Your task to perform on an android device: Go to wifi settings Image 0: 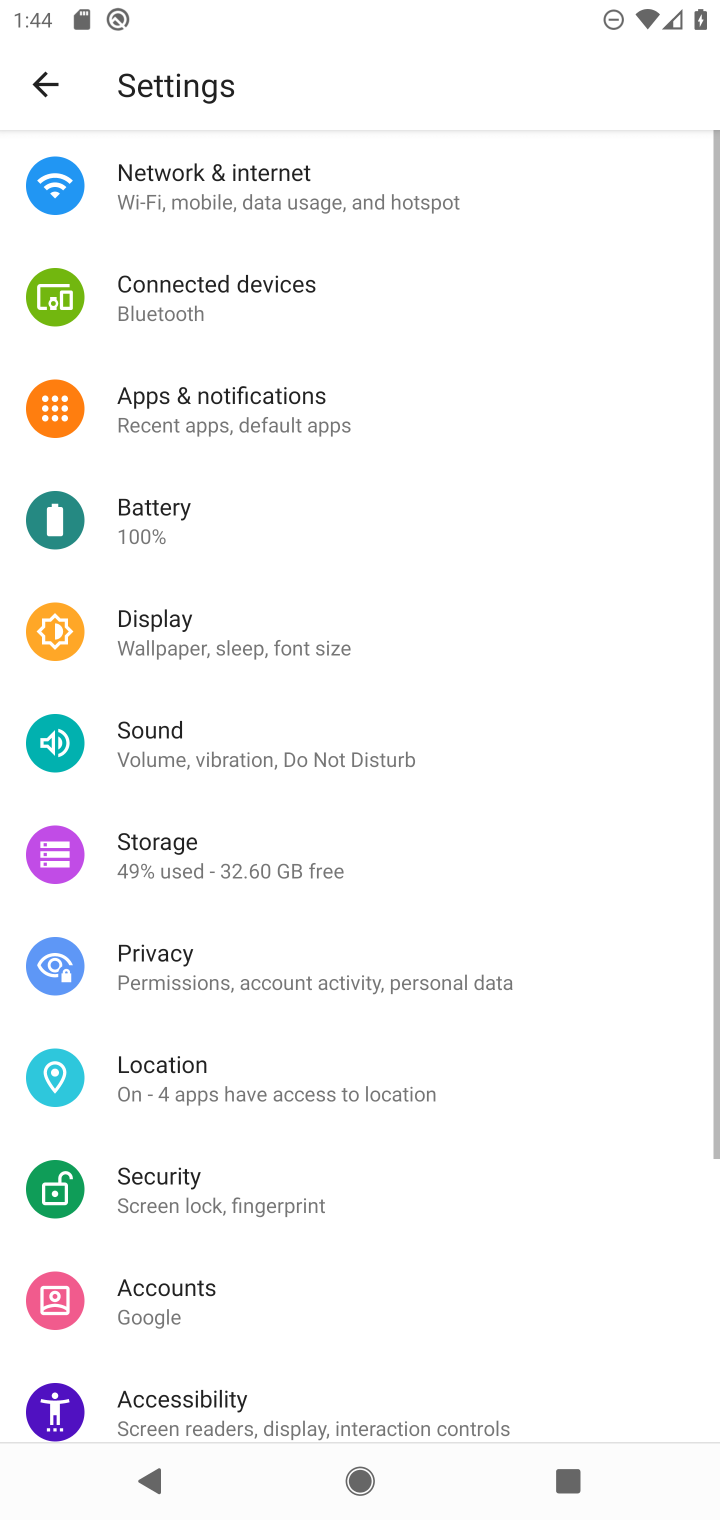
Step 0: press home button
Your task to perform on an android device: Go to wifi settings Image 1: 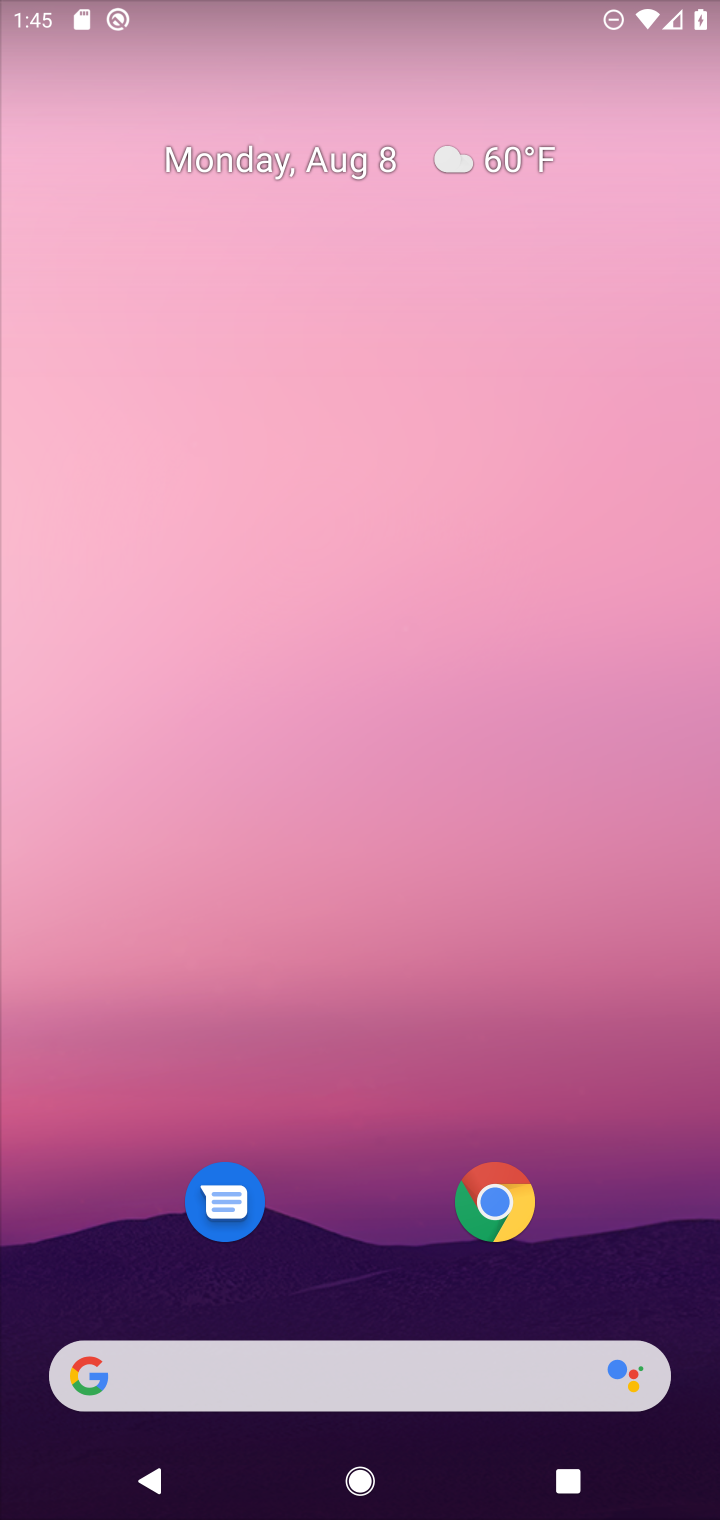
Step 1: drag from (615, 1061) to (610, 193)
Your task to perform on an android device: Go to wifi settings Image 2: 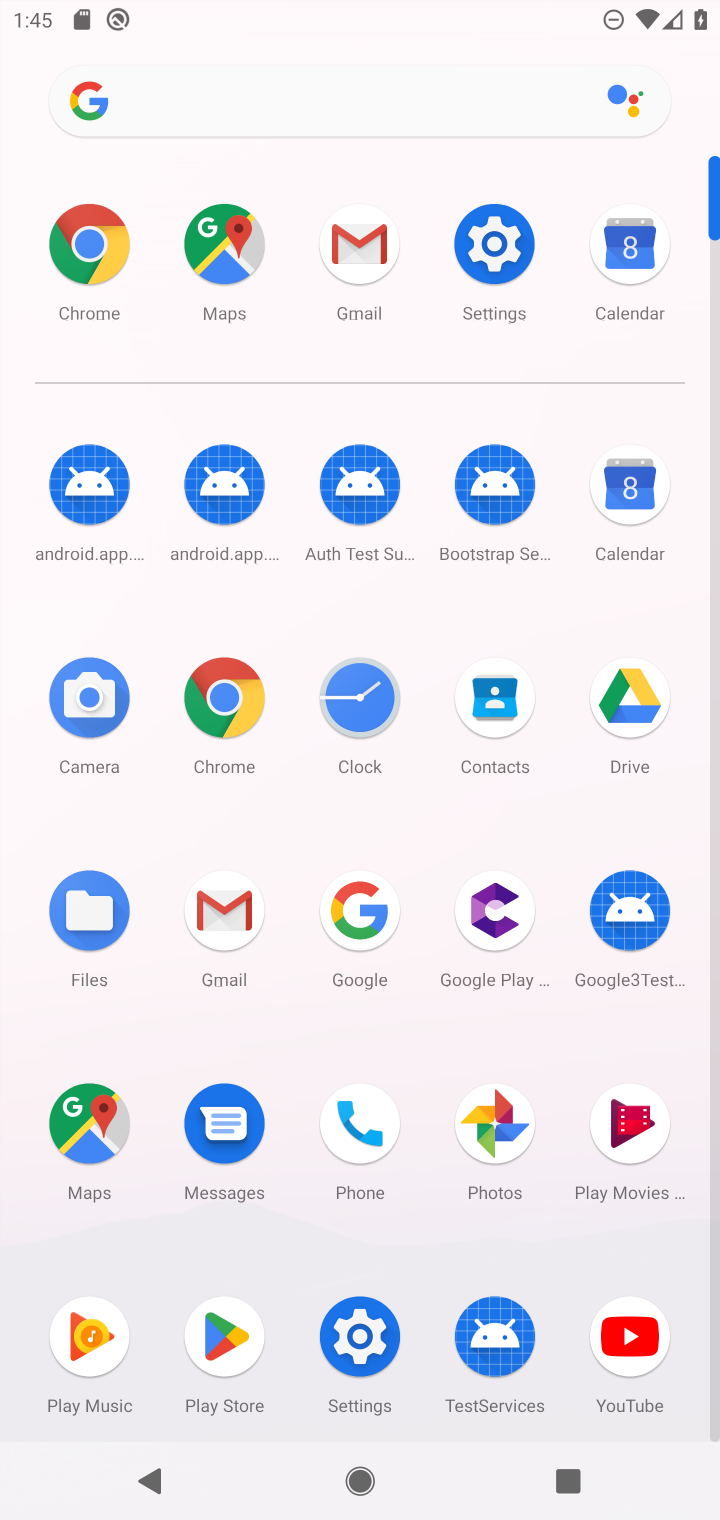
Step 2: click (486, 259)
Your task to perform on an android device: Go to wifi settings Image 3: 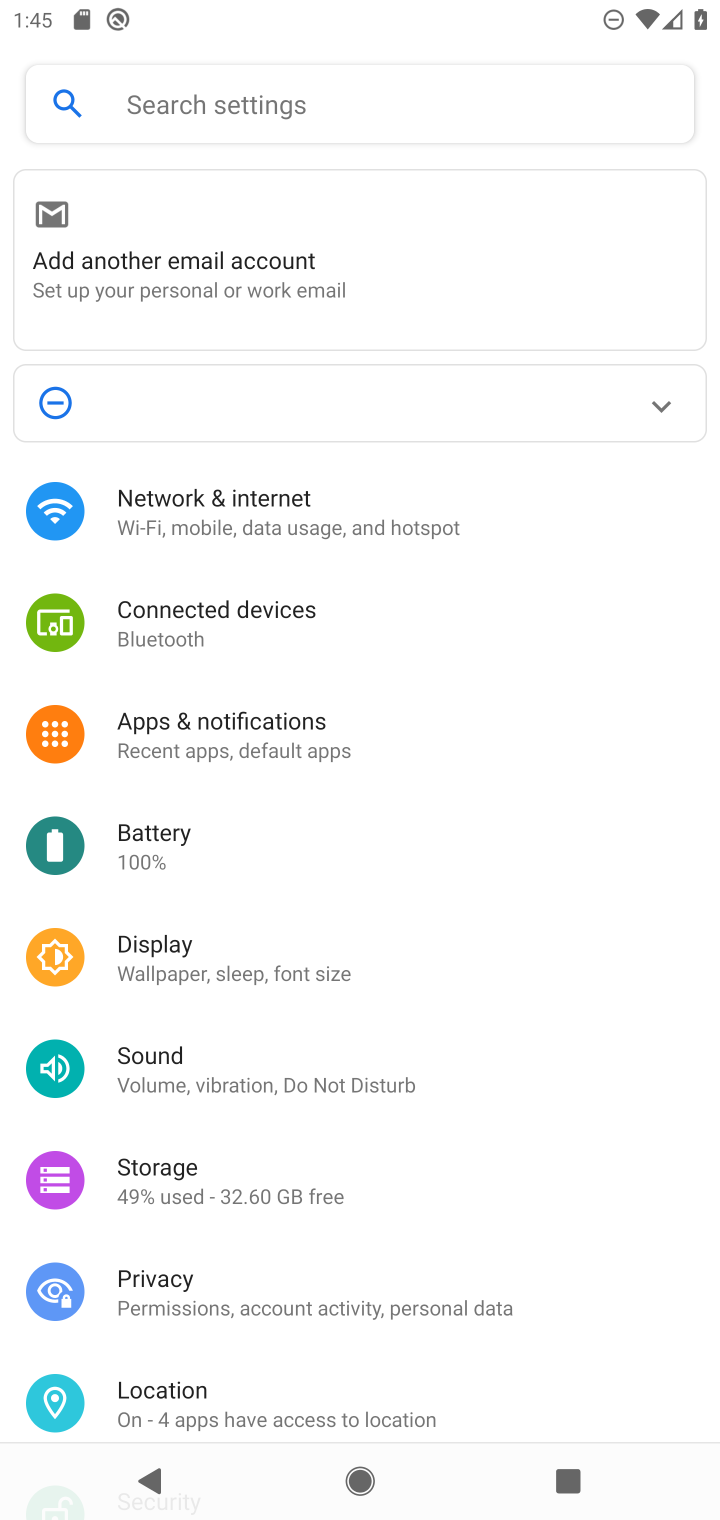
Step 3: drag from (614, 820) to (646, 568)
Your task to perform on an android device: Go to wifi settings Image 4: 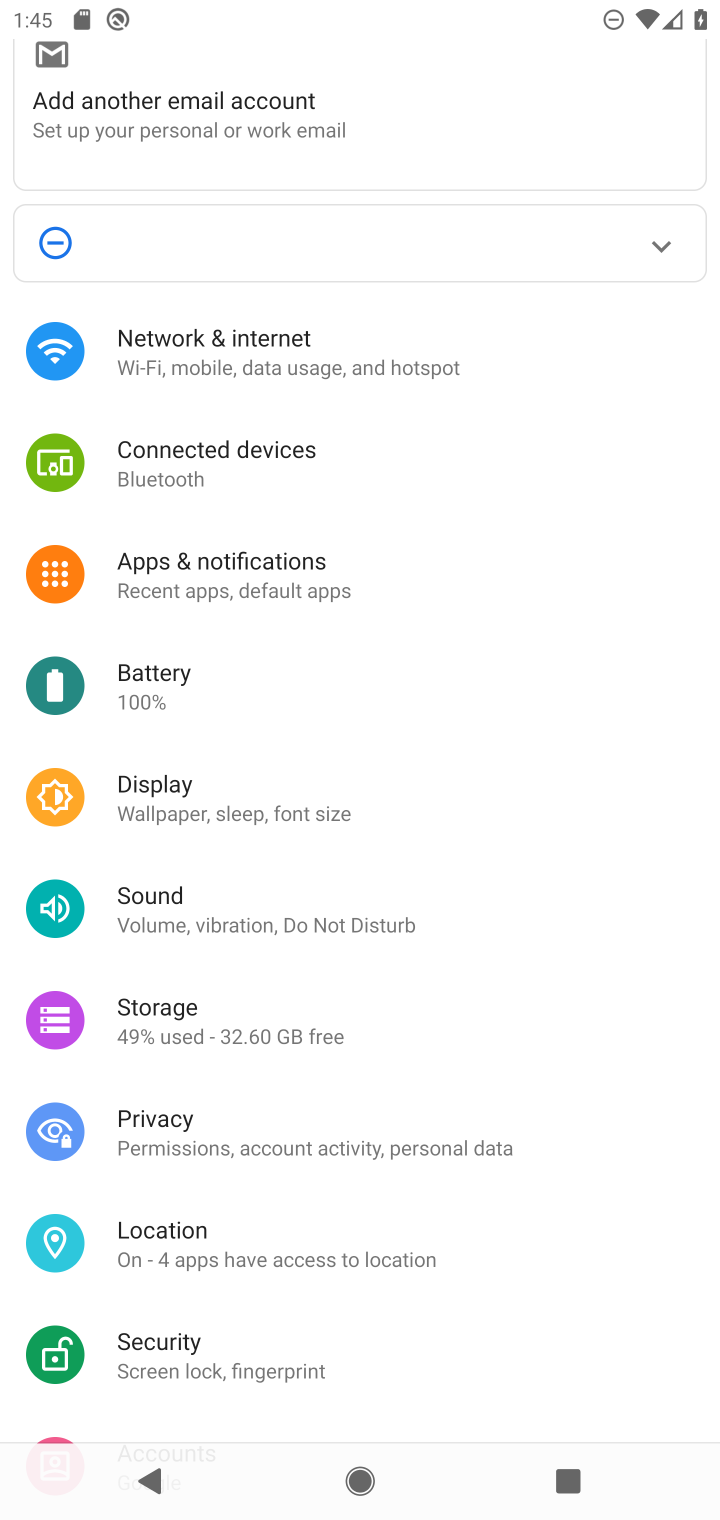
Step 4: drag from (598, 878) to (612, 518)
Your task to perform on an android device: Go to wifi settings Image 5: 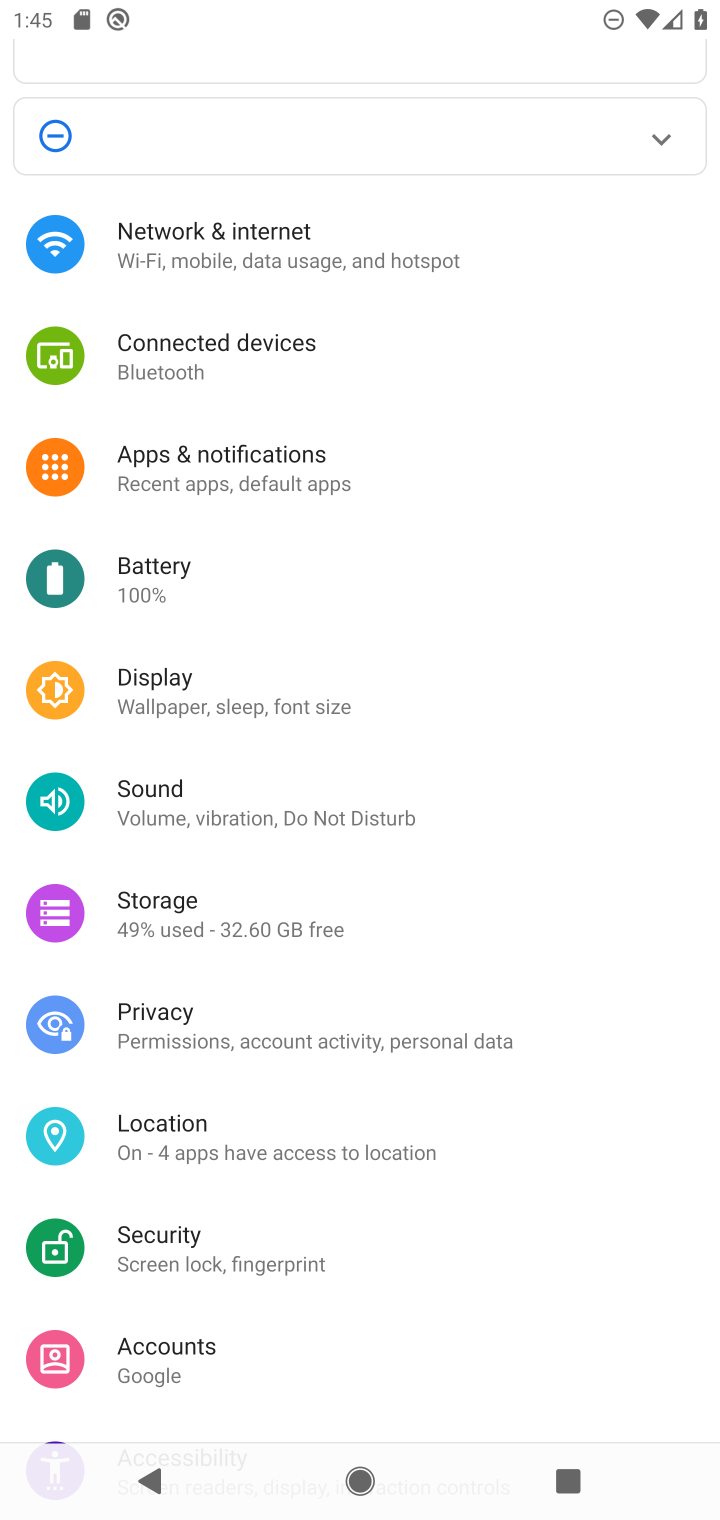
Step 5: drag from (630, 877) to (615, 476)
Your task to perform on an android device: Go to wifi settings Image 6: 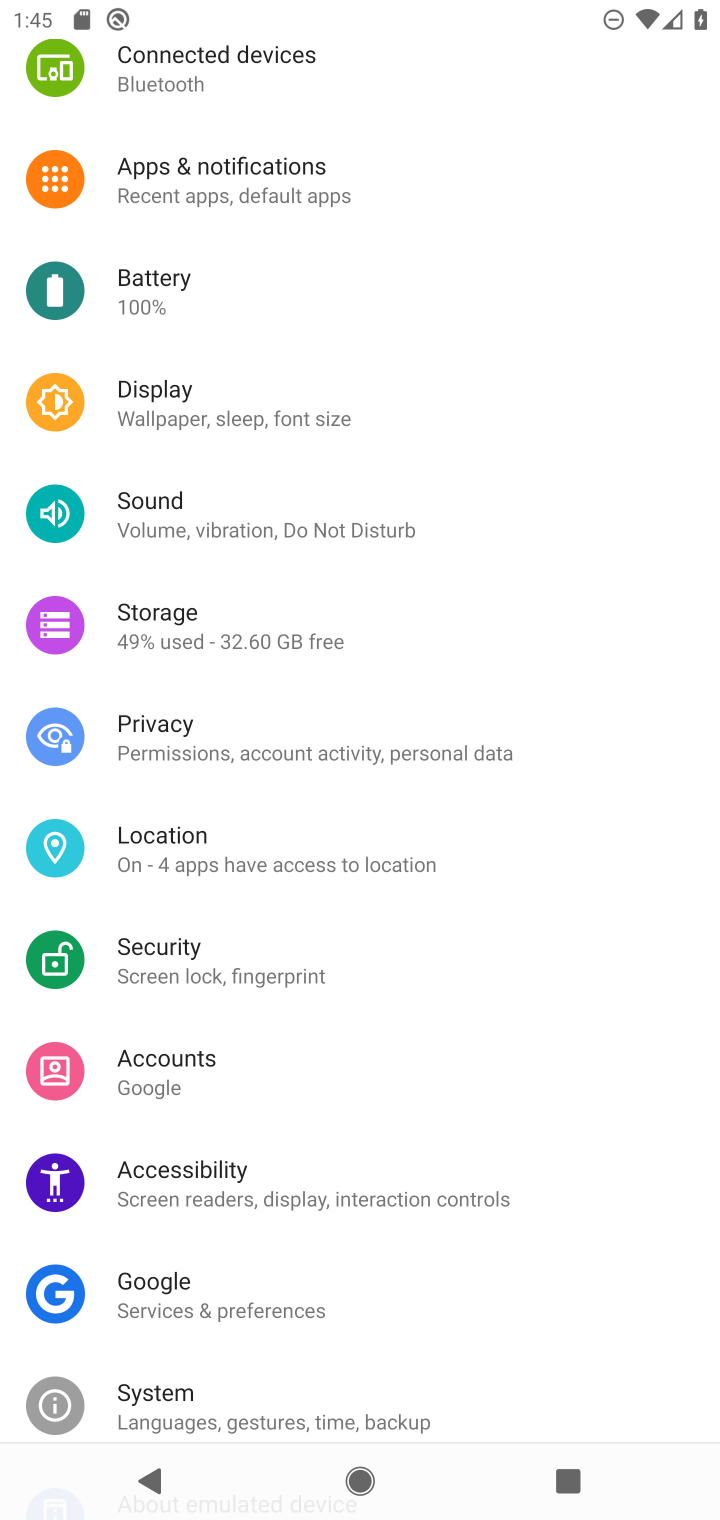
Step 6: drag from (589, 885) to (603, 585)
Your task to perform on an android device: Go to wifi settings Image 7: 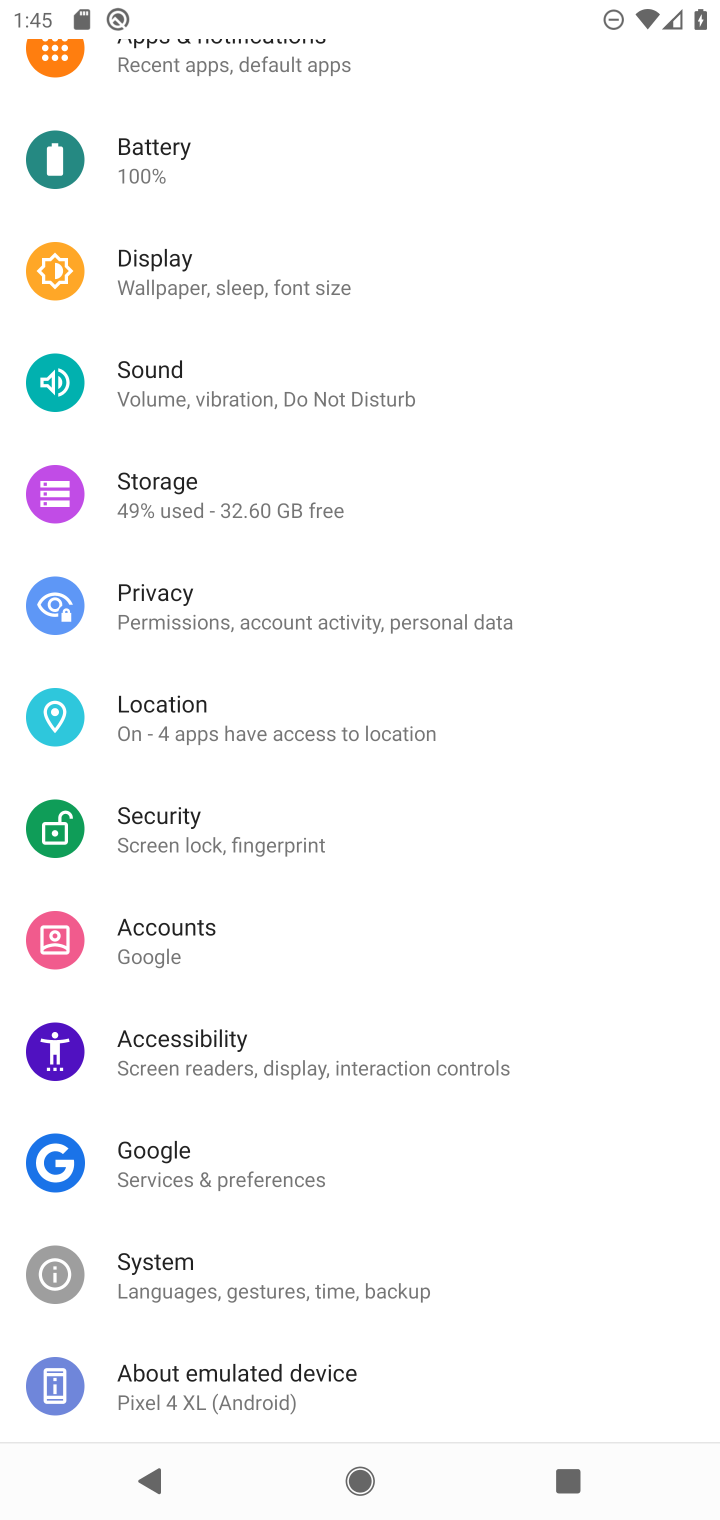
Step 7: drag from (607, 925) to (629, 530)
Your task to perform on an android device: Go to wifi settings Image 8: 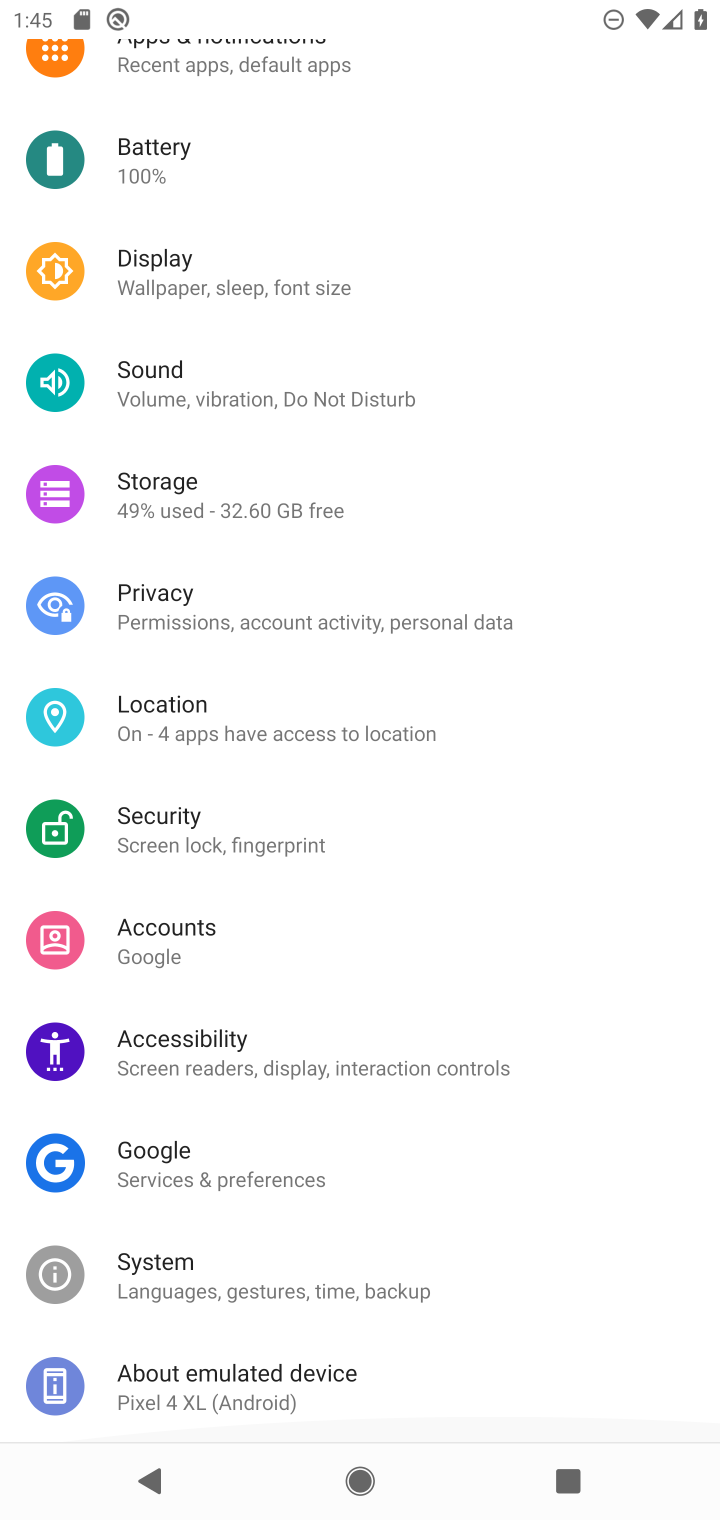
Step 8: drag from (615, 513) to (630, 854)
Your task to perform on an android device: Go to wifi settings Image 9: 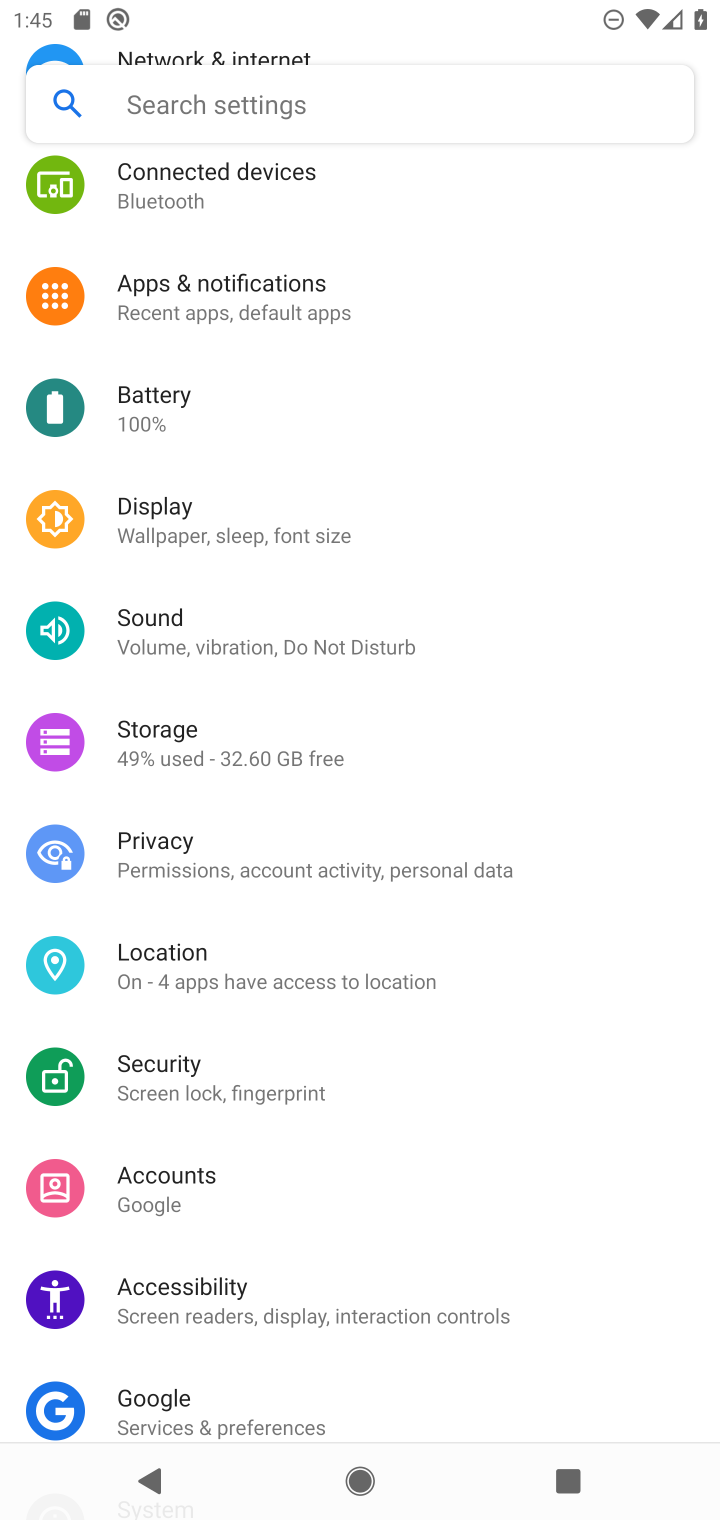
Step 9: drag from (595, 375) to (587, 772)
Your task to perform on an android device: Go to wifi settings Image 10: 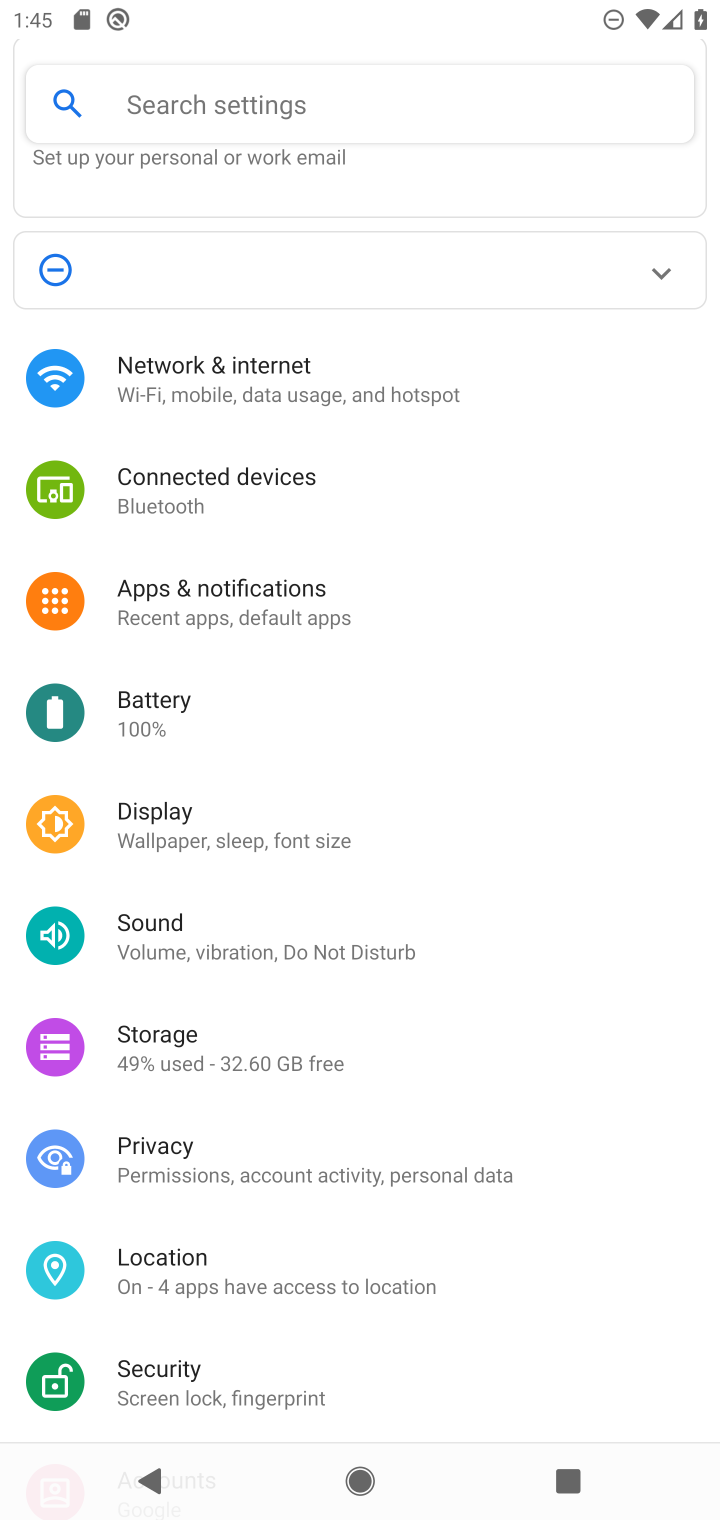
Step 10: drag from (581, 374) to (591, 861)
Your task to perform on an android device: Go to wifi settings Image 11: 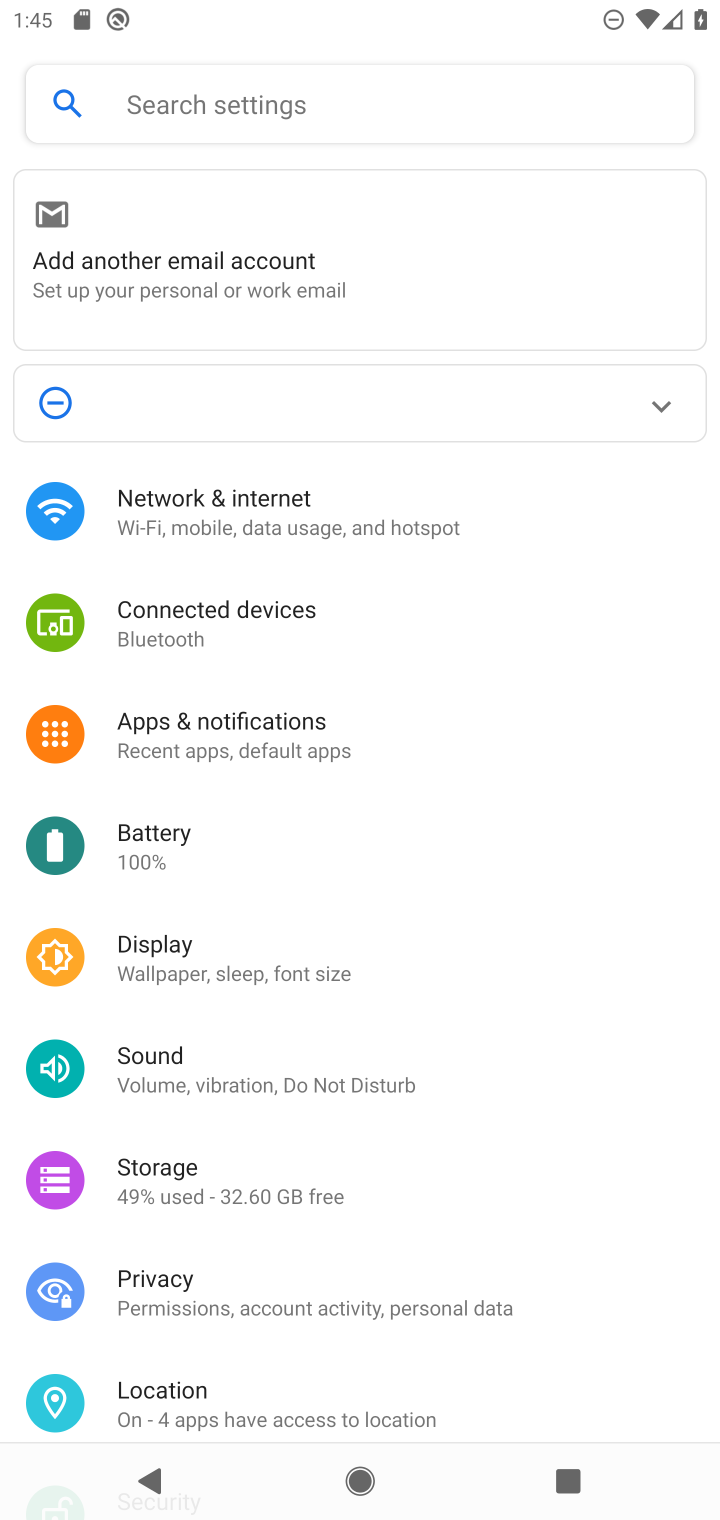
Step 11: drag from (538, 320) to (413, 512)
Your task to perform on an android device: Go to wifi settings Image 12: 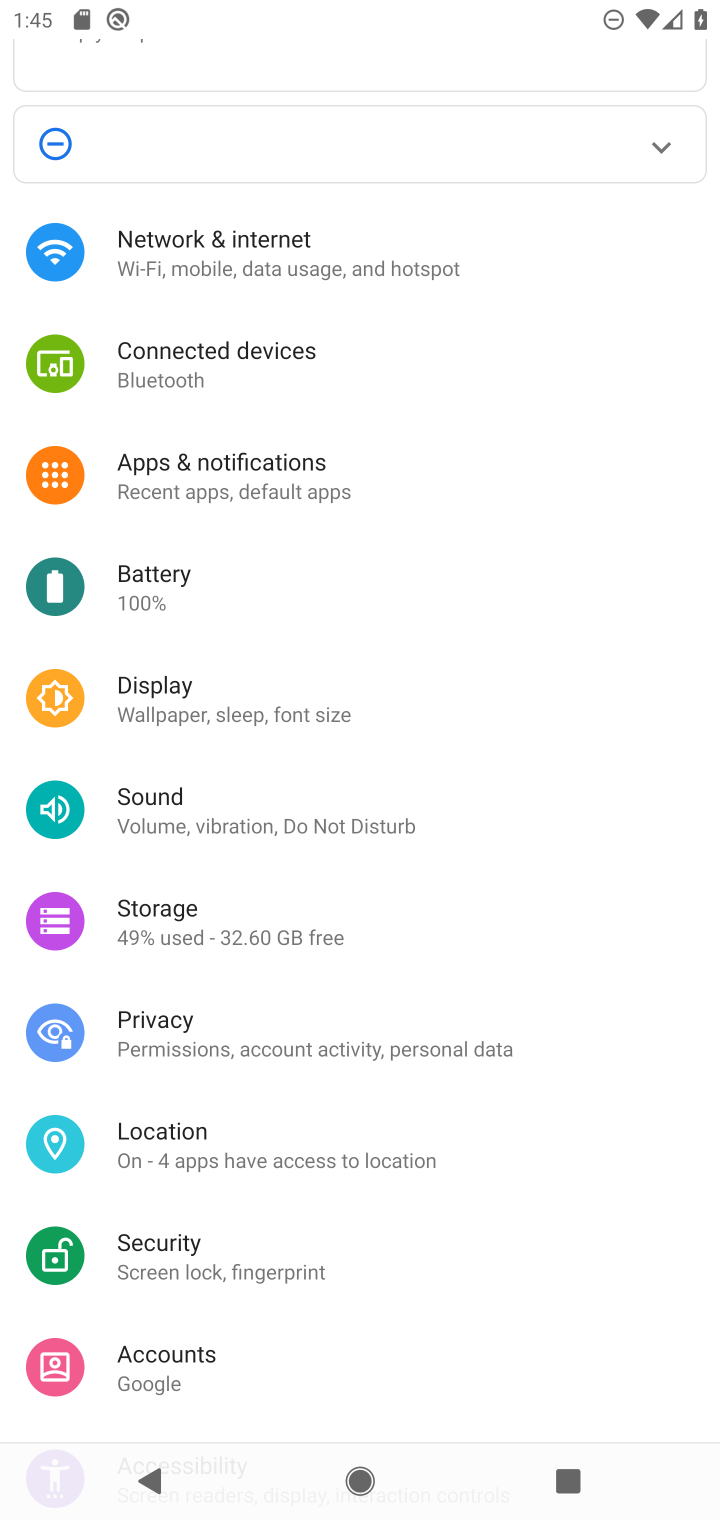
Step 12: click (335, 234)
Your task to perform on an android device: Go to wifi settings Image 13: 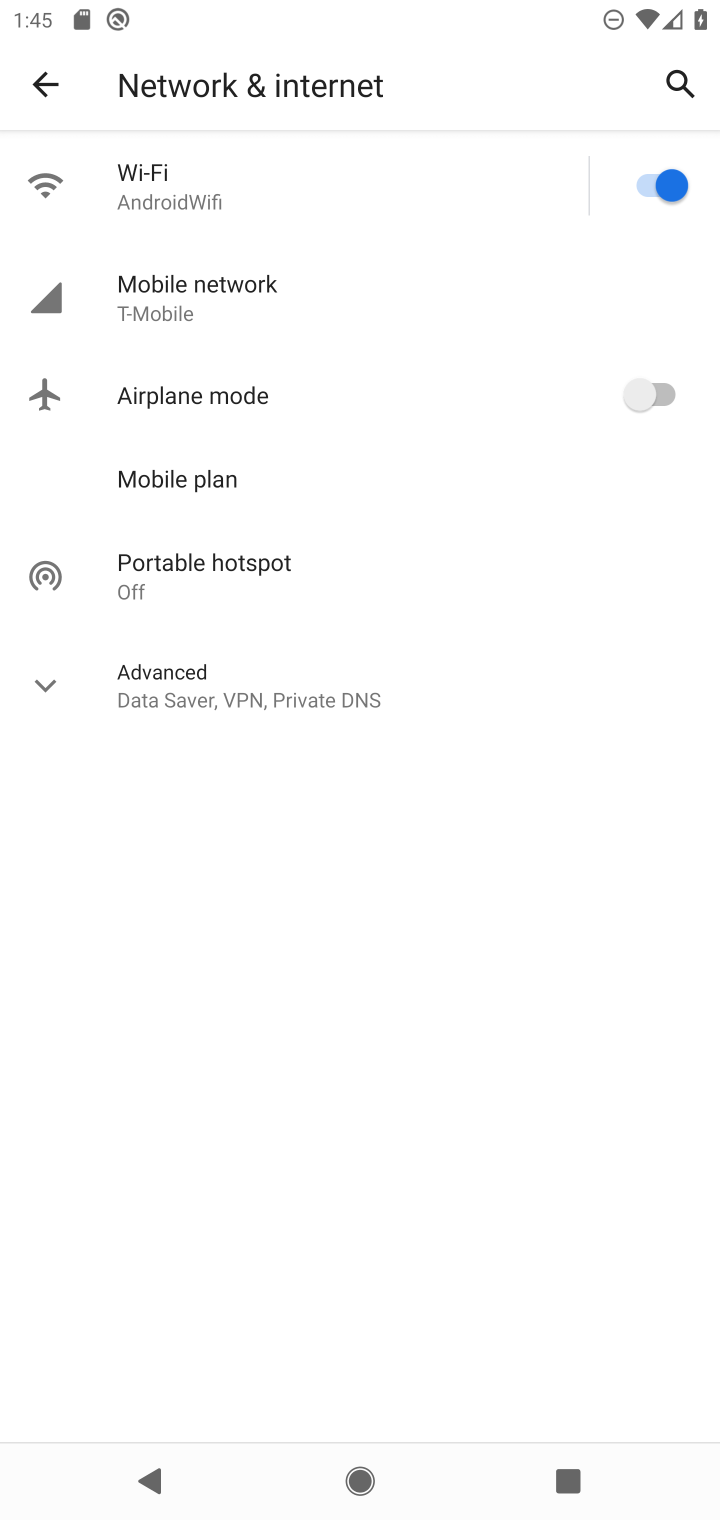
Step 13: click (203, 181)
Your task to perform on an android device: Go to wifi settings Image 14: 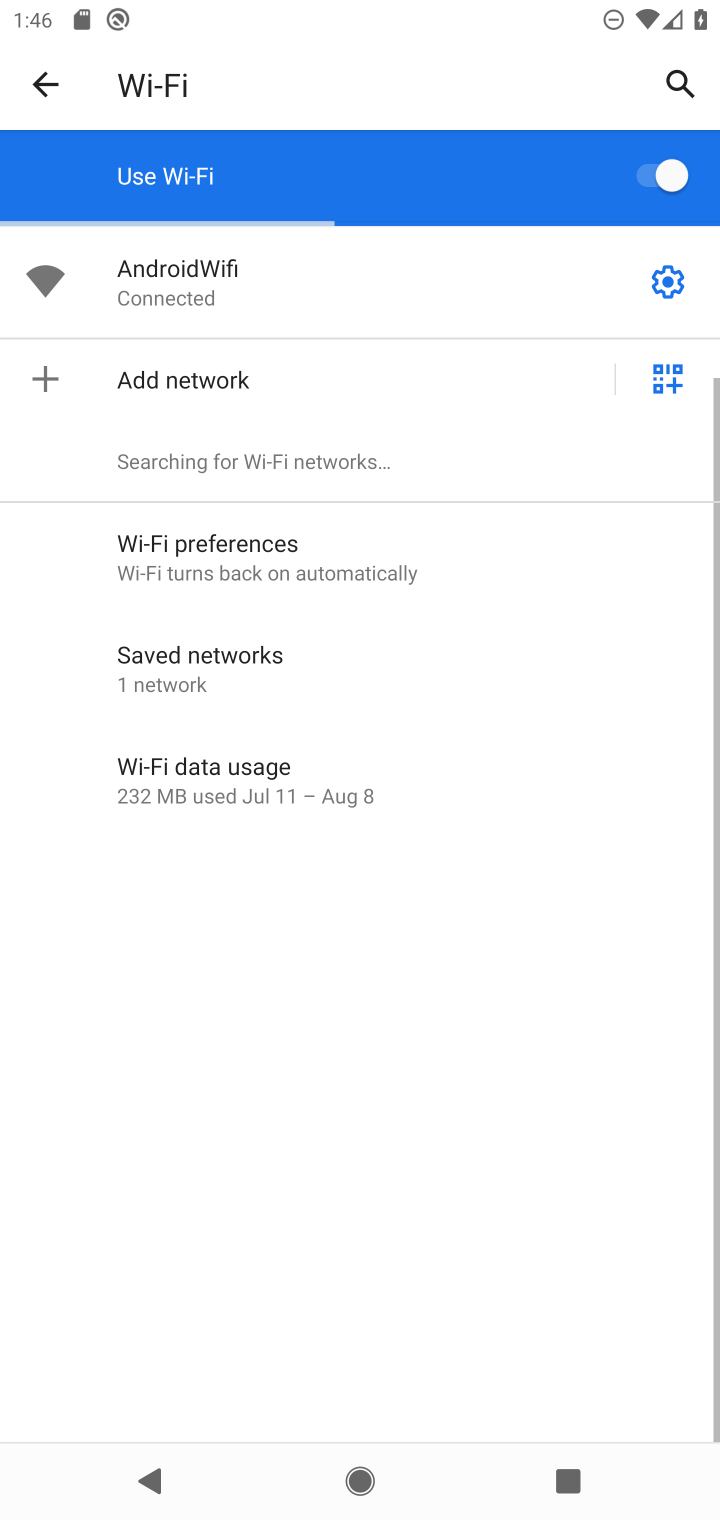
Step 14: task complete